Your task to perform on an android device: Open notification settings Image 0: 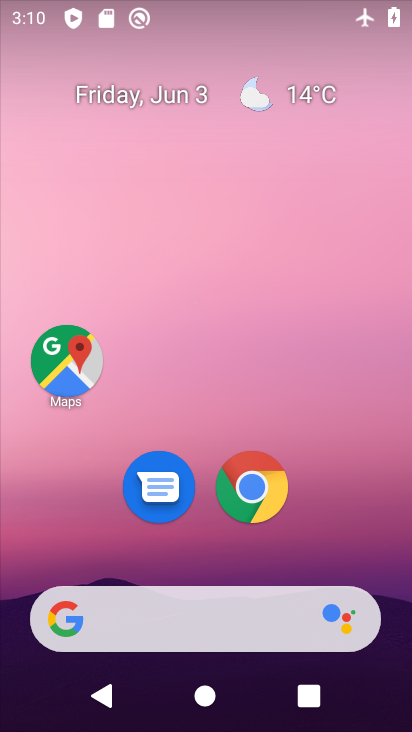
Step 0: drag from (151, 575) to (270, 22)
Your task to perform on an android device: Open notification settings Image 1: 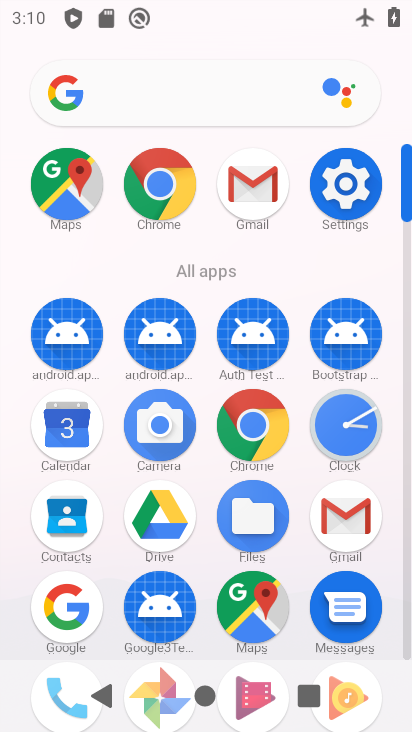
Step 1: click (348, 192)
Your task to perform on an android device: Open notification settings Image 2: 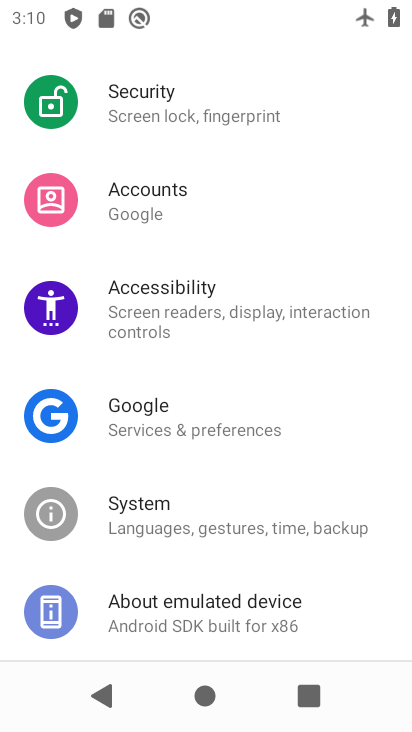
Step 2: drag from (272, 157) to (233, 679)
Your task to perform on an android device: Open notification settings Image 3: 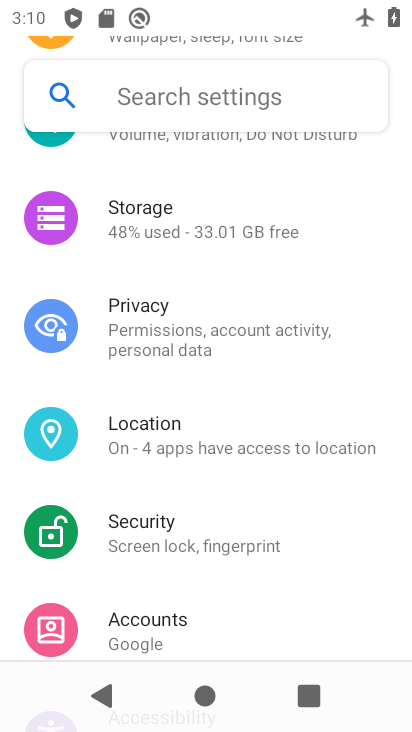
Step 3: drag from (239, 267) to (219, 723)
Your task to perform on an android device: Open notification settings Image 4: 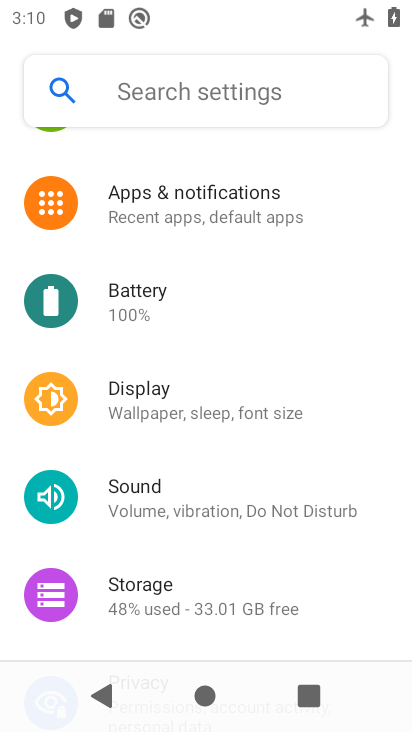
Step 4: click (210, 219)
Your task to perform on an android device: Open notification settings Image 5: 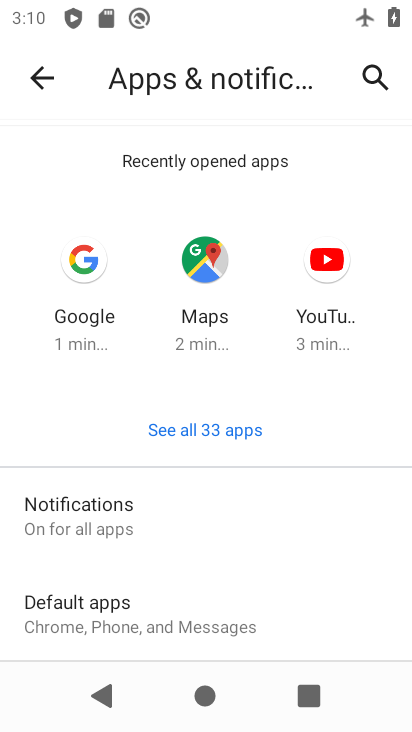
Step 5: click (134, 513)
Your task to perform on an android device: Open notification settings Image 6: 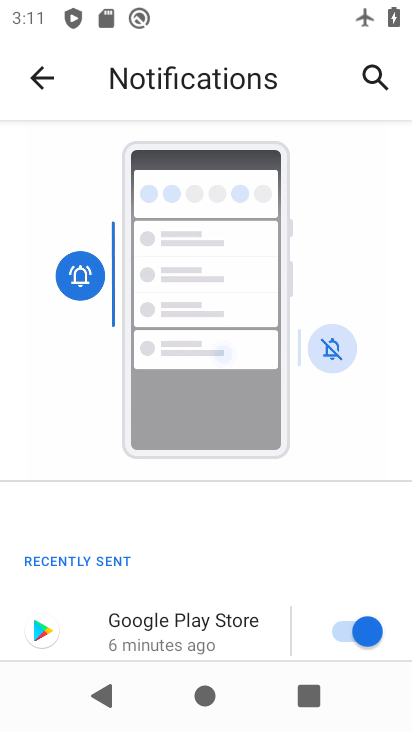
Step 6: task complete